Your task to perform on an android device: Open the web browser Image 0: 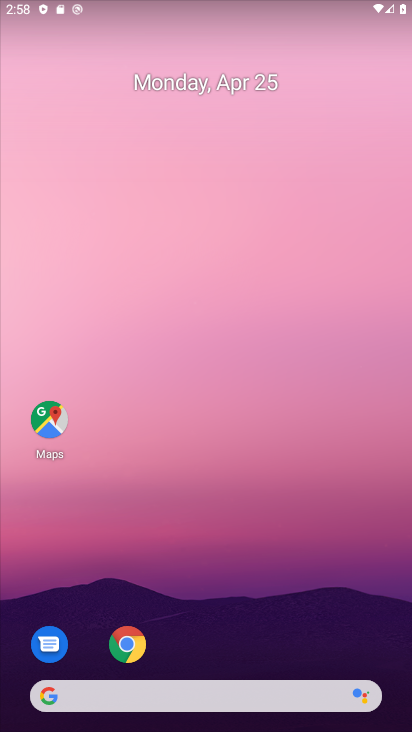
Step 0: click (123, 649)
Your task to perform on an android device: Open the web browser Image 1: 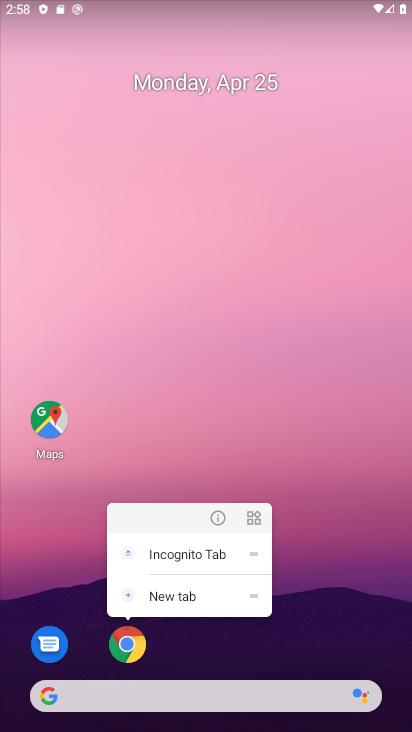
Step 1: click (123, 651)
Your task to perform on an android device: Open the web browser Image 2: 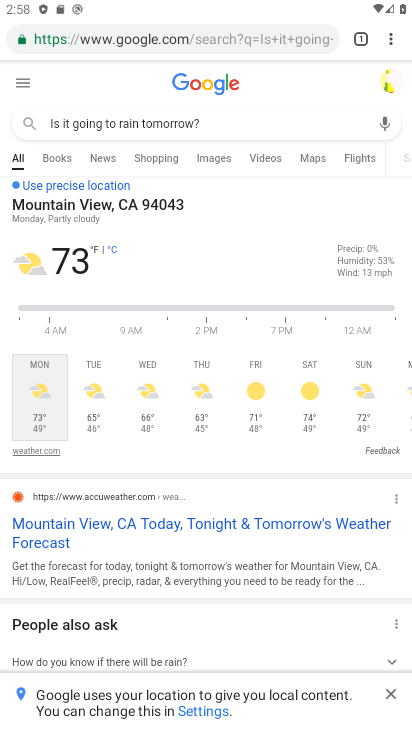
Step 2: task complete